Your task to perform on an android device: Turn off the flashlight Image 0: 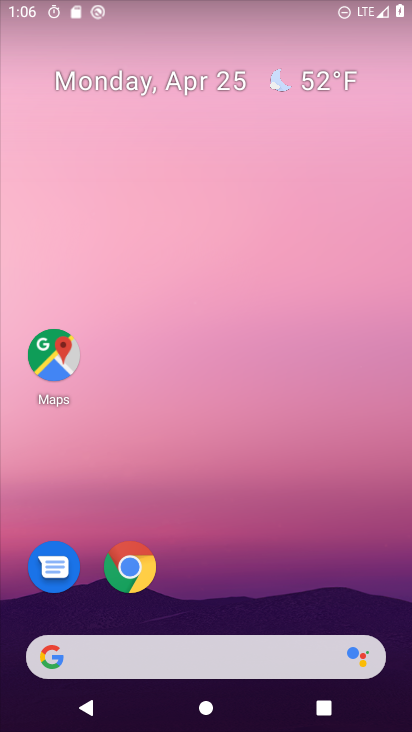
Step 0: drag from (283, 531) to (271, 109)
Your task to perform on an android device: Turn off the flashlight Image 1: 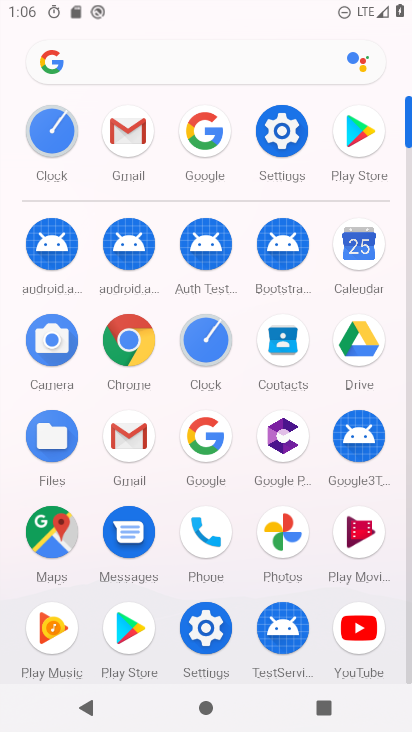
Step 1: click (278, 128)
Your task to perform on an android device: Turn off the flashlight Image 2: 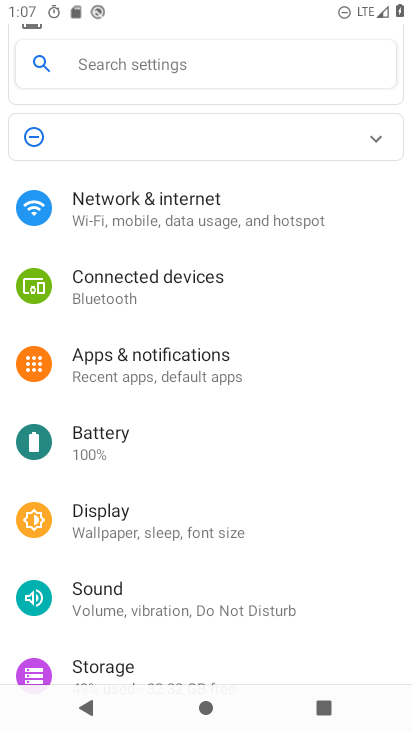
Step 2: click (267, 58)
Your task to perform on an android device: Turn off the flashlight Image 3: 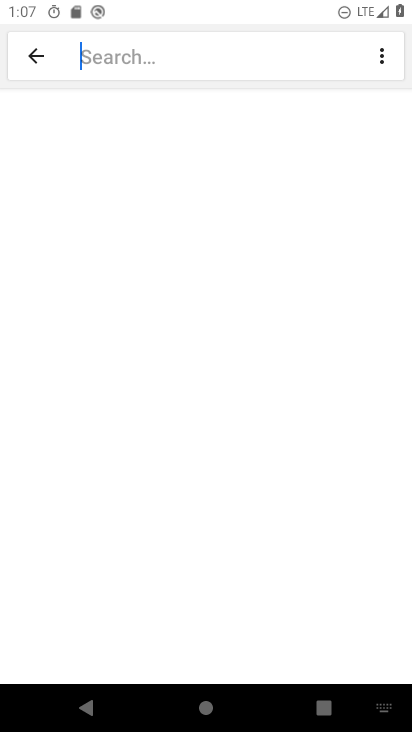
Step 3: type "flashlight"
Your task to perform on an android device: Turn off the flashlight Image 4: 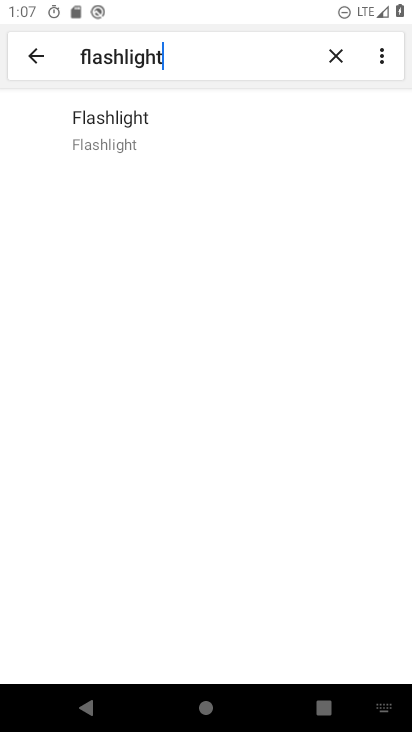
Step 4: click (125, 124)
Your task to perform on an android device: Turn off the flashlight Image 5: 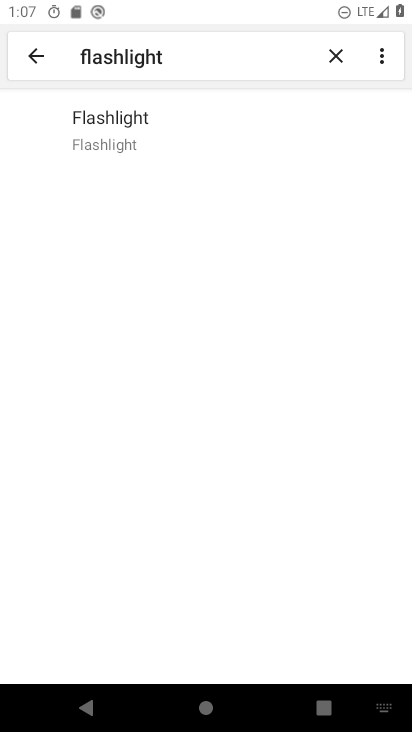
Step 5: task complete